Your task to perform on an android device: allow cookies in the chrome app Image 0: 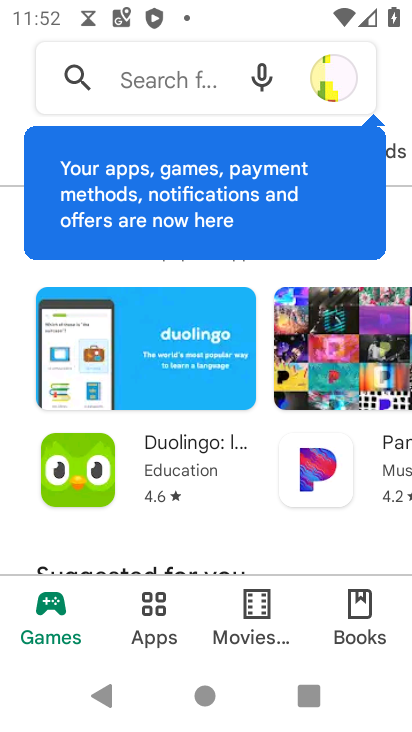
Step 0: press home button
Your task to perform on an android device: allow cookies in the chrome app Image 1: 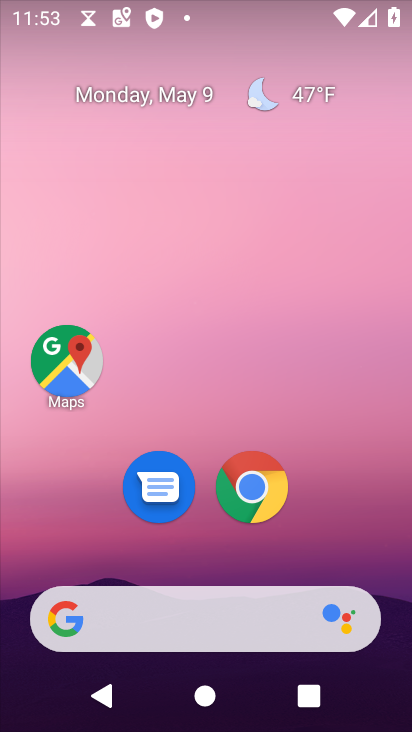
Step 1: drag from (203, 558) to (237, 135)
Your task to perform on an android device: allow cookies in the chrome app Image 2: 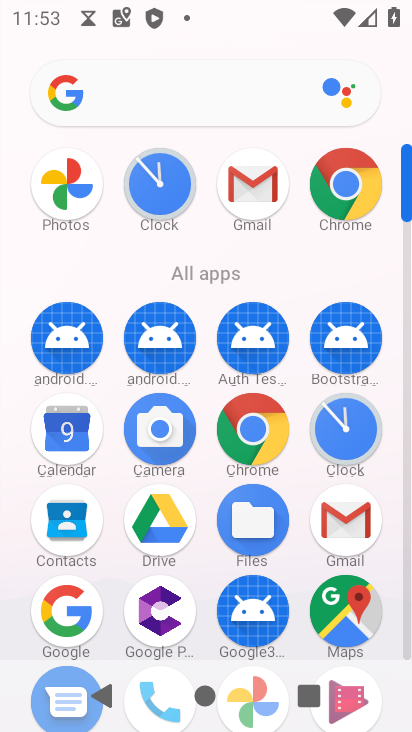
Step 2: click (249, 422)
Your task to perform on an android device: allow cookies in the chrome app Image 3: 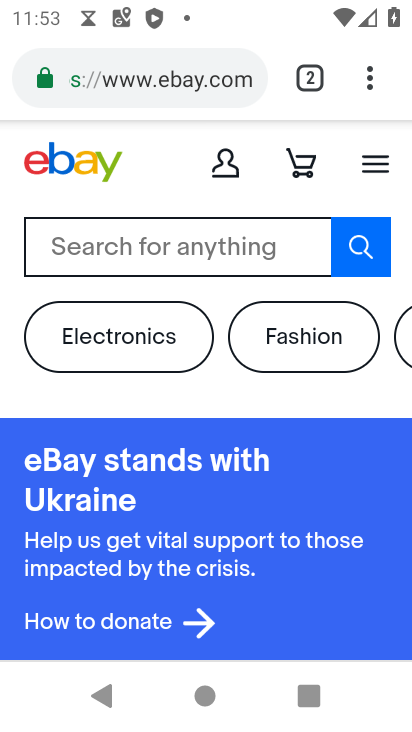
Step 3: click (366, 83)
Your task to perform on an android device: allow cookies in the chrome app Image 4: 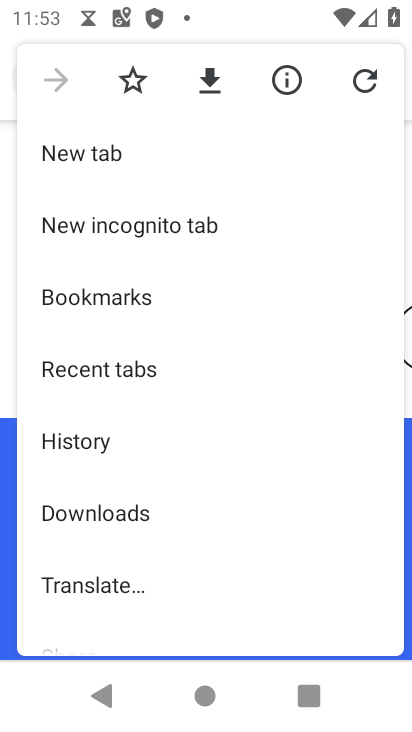
Step 4: drag from (153, 579) to (177, 134)
Your task to perform on an android device: allow cookies in the chrome app Image 5: 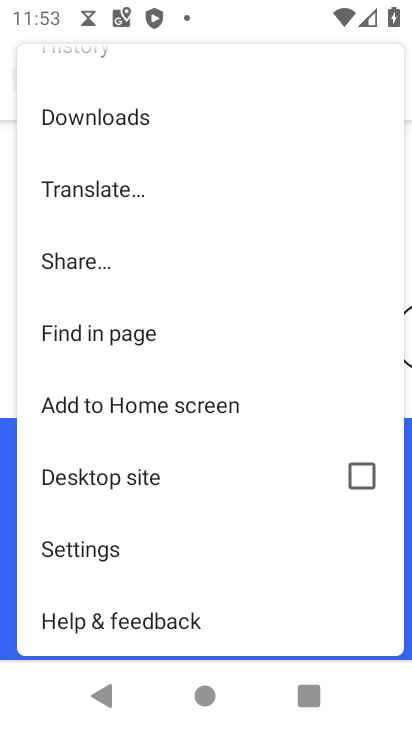
Step 5: click (131, 540)
Your task to perform on an android device: allow cookies in the chrome app Image 6: 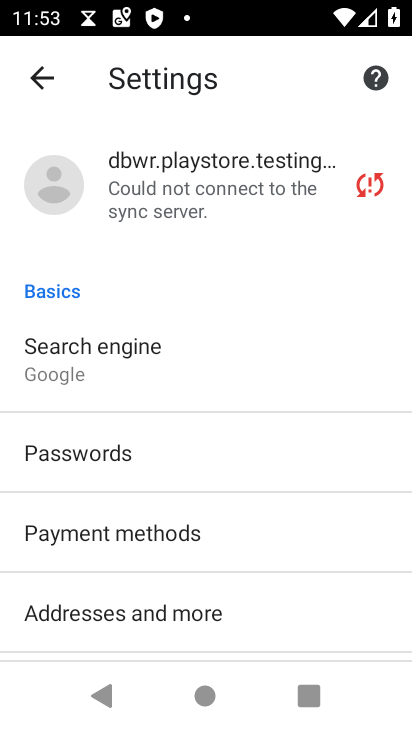
Step 6: drag from (171, 622) to (174, 223)
Your task to perform on an android device: allow cookies in the chrome app Image 7: 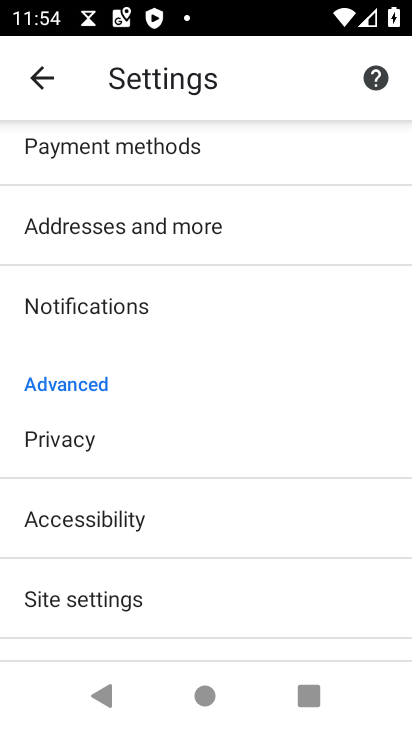
Step 7: click (163, 595)
Your task to perform on an android device: allow cookies in the chrome app Image 8: 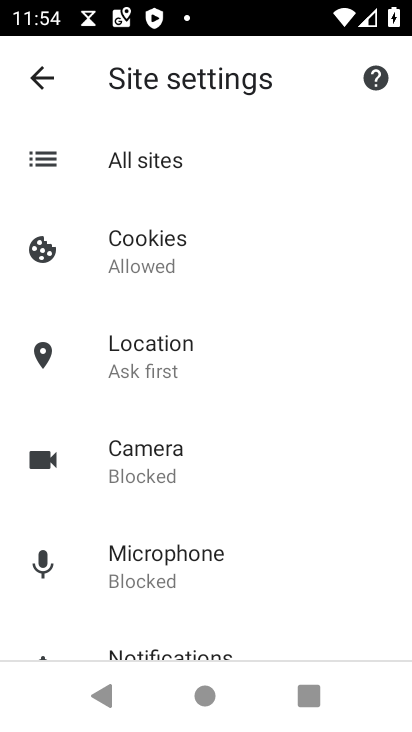
Step 8: click (88, 250)
Your task to perform on an android device: allow cookies in the chrome app Image 9: 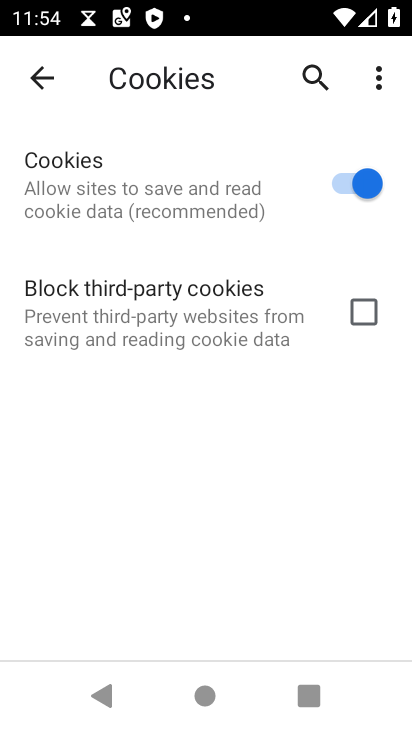
Step 9: task complete